Your task to perform on an android device: turn on priority inbox in the gmail app Image 0: 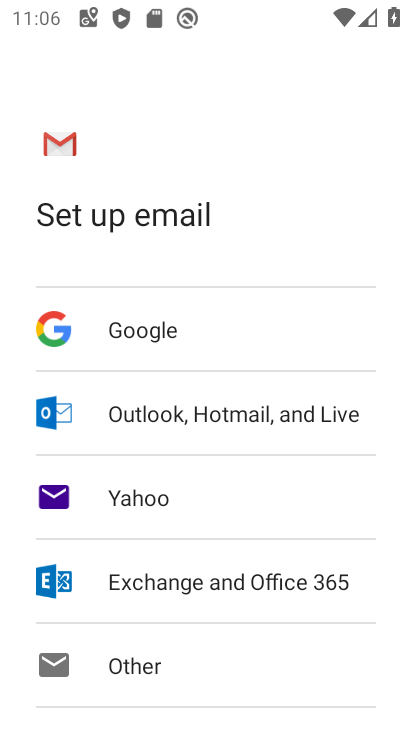
Step 0: press home button
Your task to perform on an android device: turn on priority inbox in the gmail app Image 1: 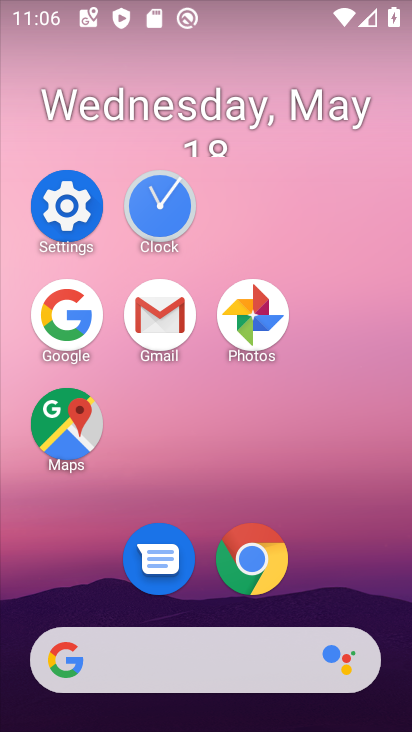
Step 1: click (155, 335)
Your task to perform on an android device: turn on priority inbox in the gmail app Image 2: 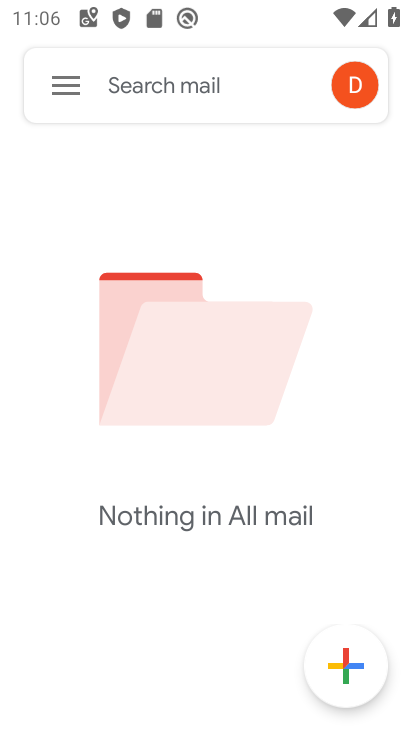
Step 2: click (48, 82)
Your task to perform on an android device: turn on priority inbox in the gmail app Image 3: 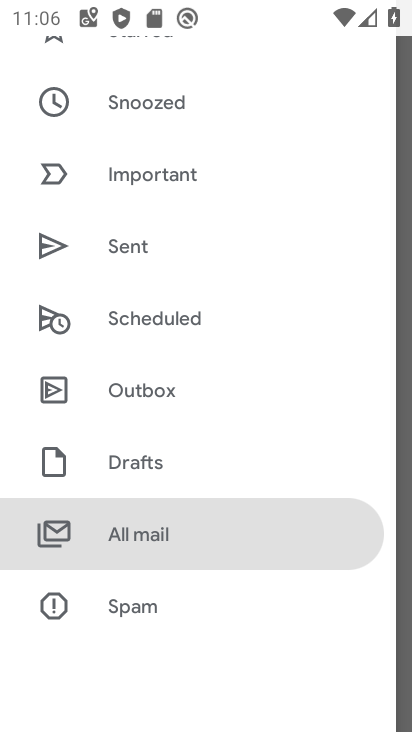
Step 3: drag from (245, 463) to (267, 148)
Your task to perform on an android device: turn on priority inbox in the gmail app Image 4: 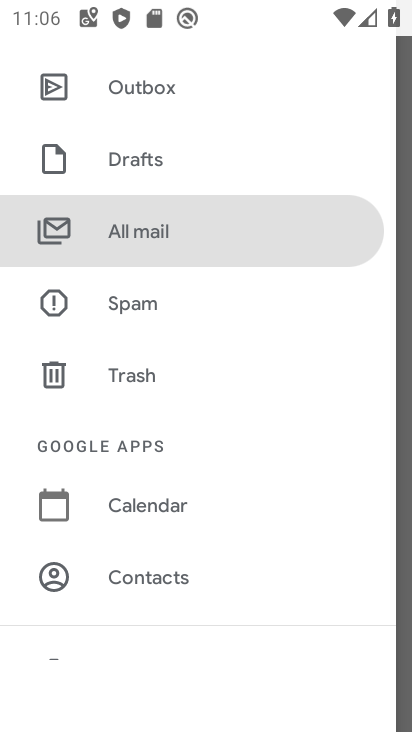
Step 4: drag from (216, 570) to (259, 221)
Your task to perform on an android device: turn on priority inbox in the gmail app Image 5: 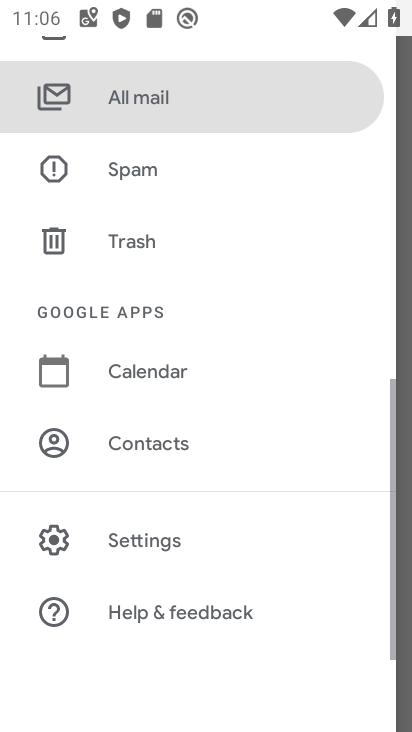
Step 5: click (173, 559)
Your task to perform on an android device: turn on priority inbox in the gmail app Image 6: 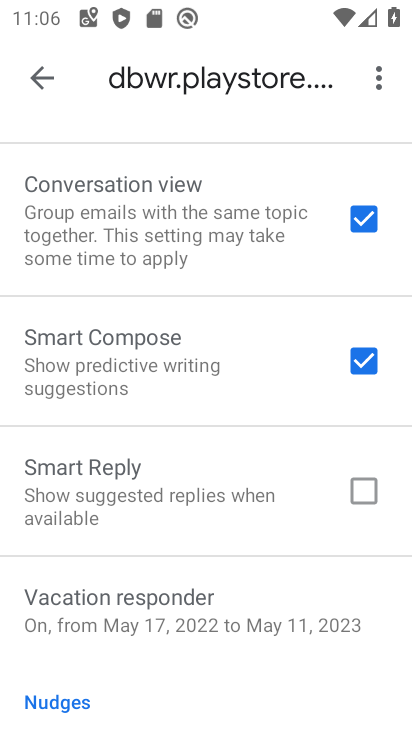
Step 6: task complete